Your task to perform on an android device: Open Google Maps Image 0: 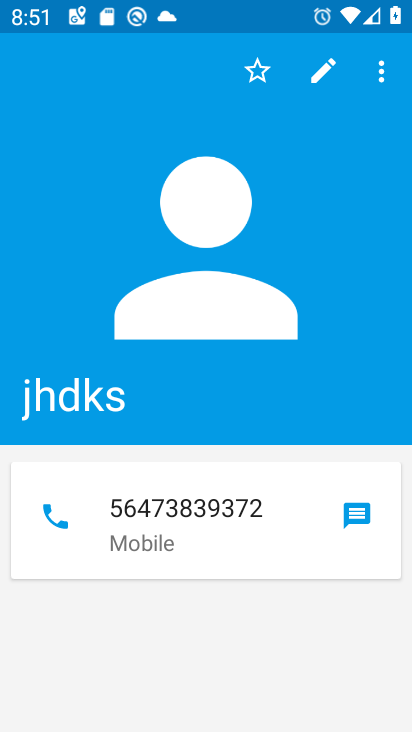
Step 0: press home button
Your task to perform on an android device: Open Google Maps Image 1: 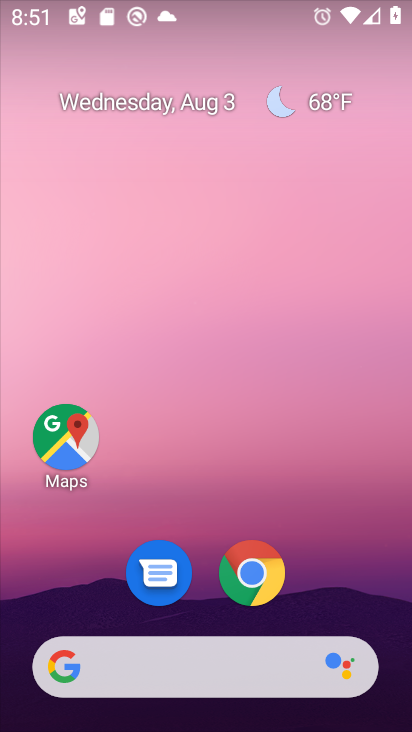
Step 1: click (67, 439)
Your task to perform on an android device: Open Google Maps Image 2: 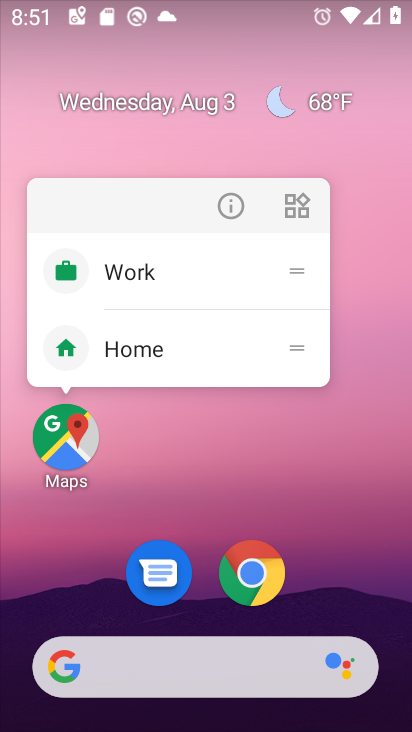
Step 2: click (67, 439)
Your task to perform on an android device: Open Google Maps Image 3: 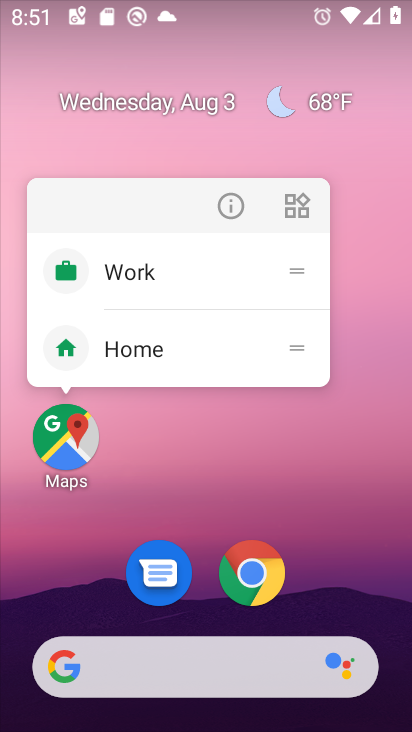
Step 3: click (67, 434)
Your task to perform on an android device: Open Google Maps Image 4: 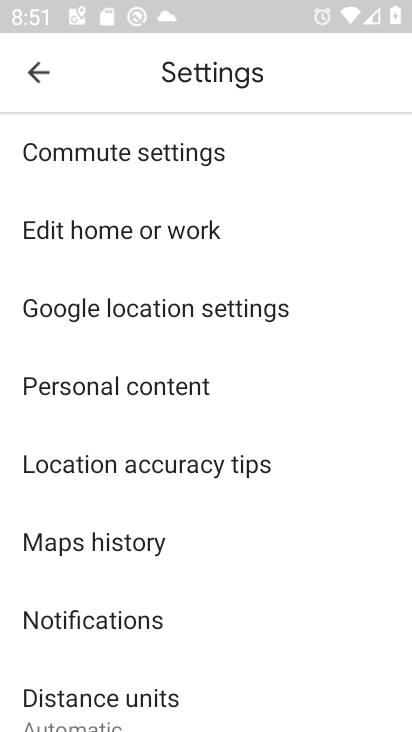
Step 4: click (45, 76)
Your task to perform on an android device: Open Google Maps Image 5: 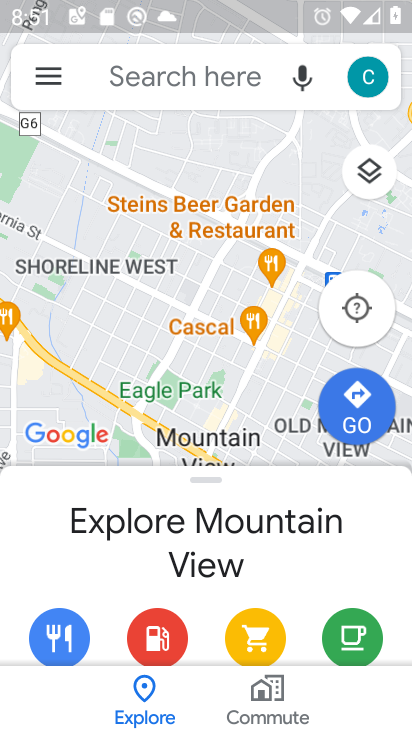
Step 5: task complete